Your task to perform on an android device: toggle sleep mode Image 0: 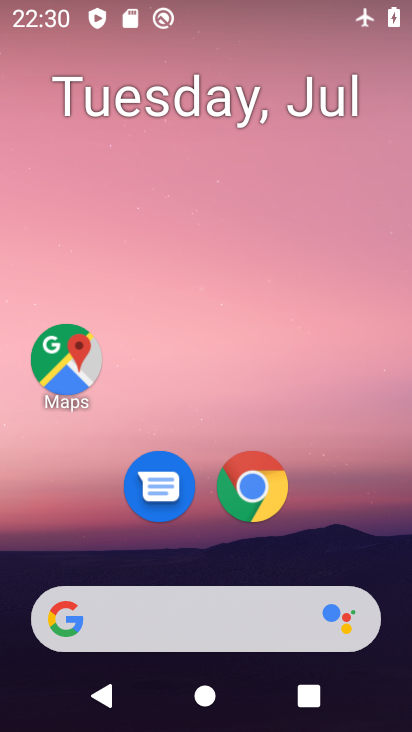
Step 0: press home button
Your task to perform on an android device: toggle sleep mode Image 1: 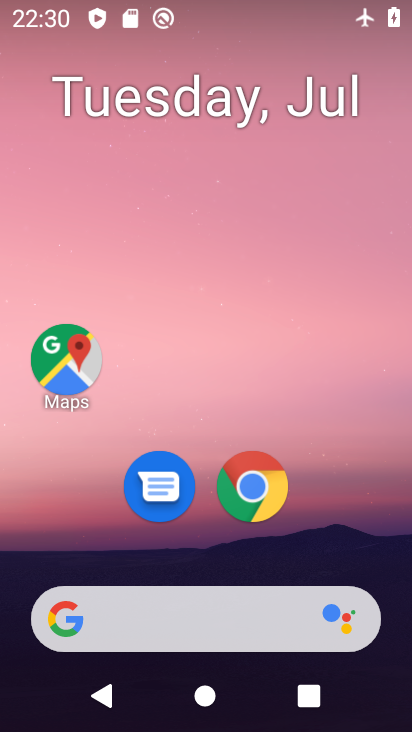
Step 1: drag from (361, 530) to (377, 191)
Your task to perform on an android device: toggle sleep mode Image 2: 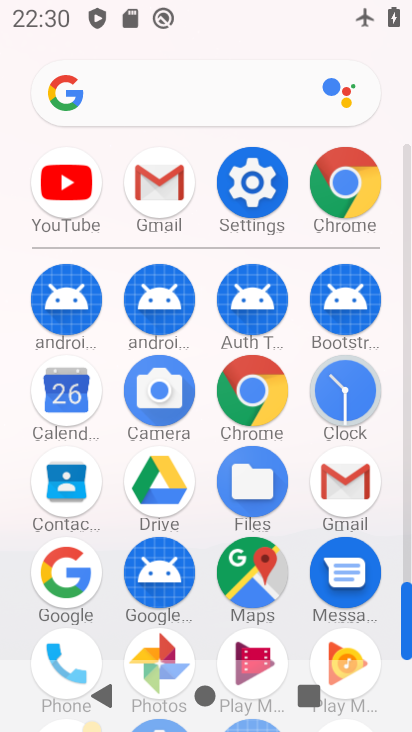
Step 2: click (260, 189)
Your task to perform on an android device: toggle sleep mode Image 3: 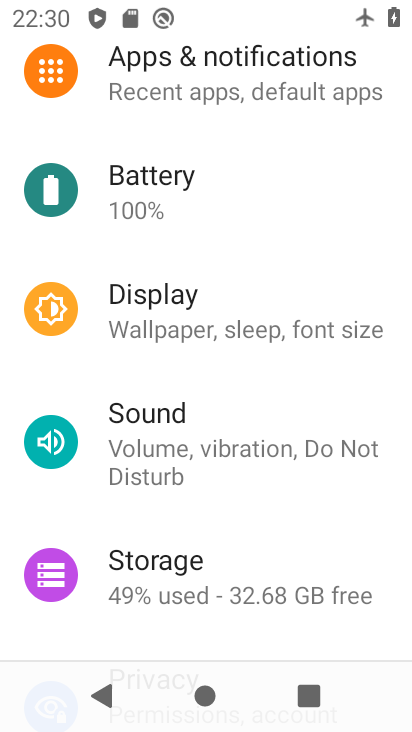
Step 3: drag from (365, 143) to (354, 314)
Your task to perform on an android device: toggle sleep mode Image 4: 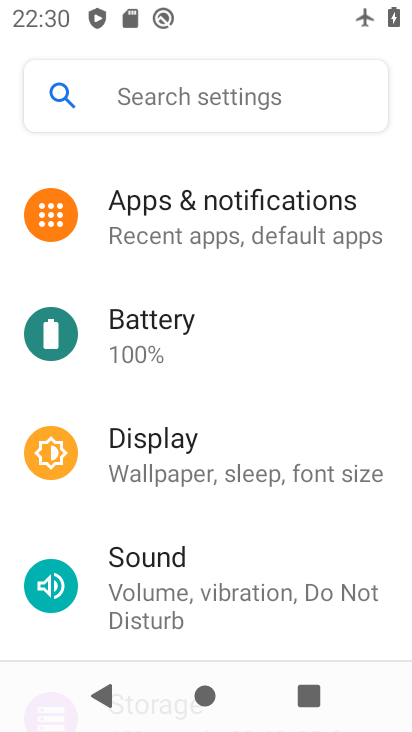
Step 4: drag from (377, 178) to (366, 338)
Your task to perform on an android device: toggle sleep mode Image 5: 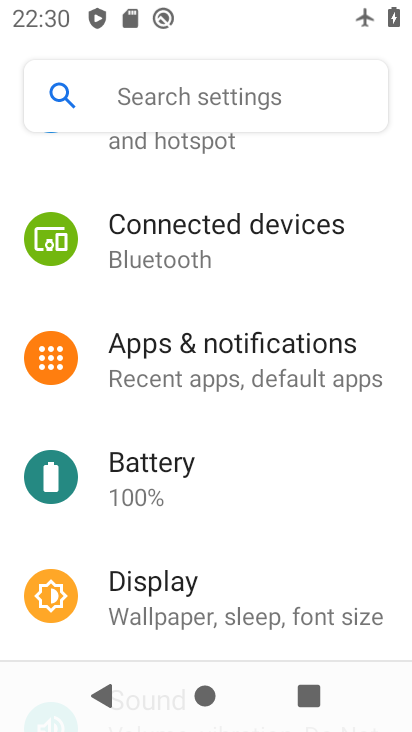
Step 5: drag from (361, 224) to (361, 408)
Your task to perform on an android device: toggle sleep mode Image 6: 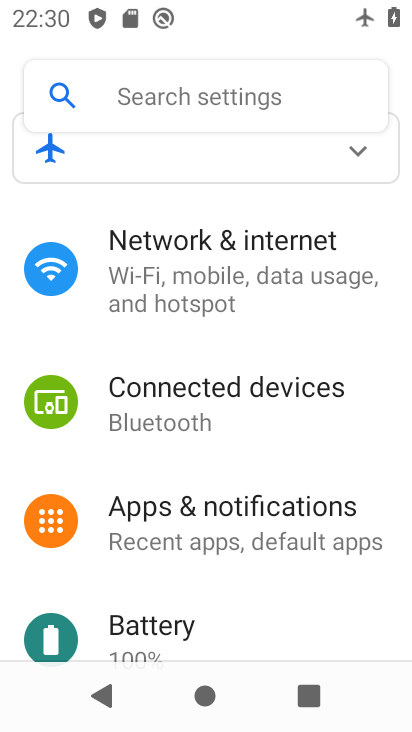
Step 6: drag from (368, 307) to (363, 447)
Your task to perform on an android device: toggle sleep mode Image 7: 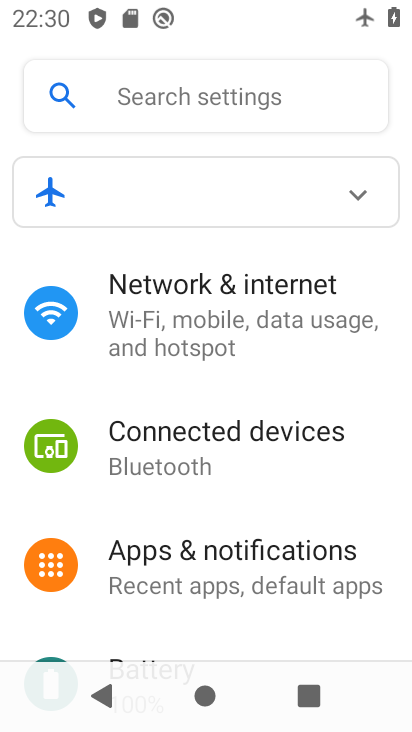
Step 7: drag from (343, 560) to (344, 444)
Your task to perform on an android device: toggle sleep mode Image 8: 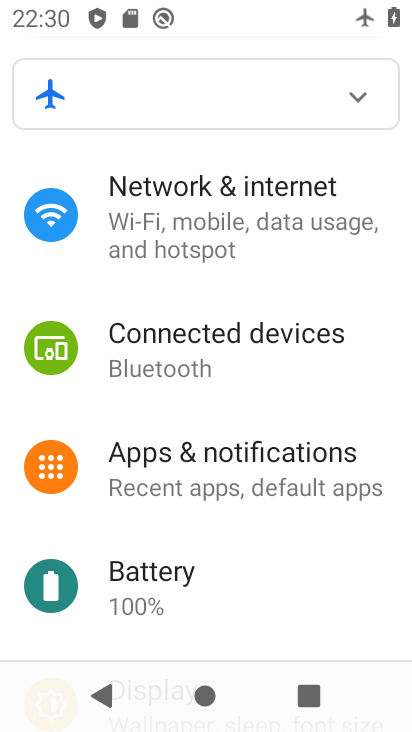
Step 8: drag from (320, 544) to (319, 442)
Your task to perform on an android device: toggle sleep mode Image 9: 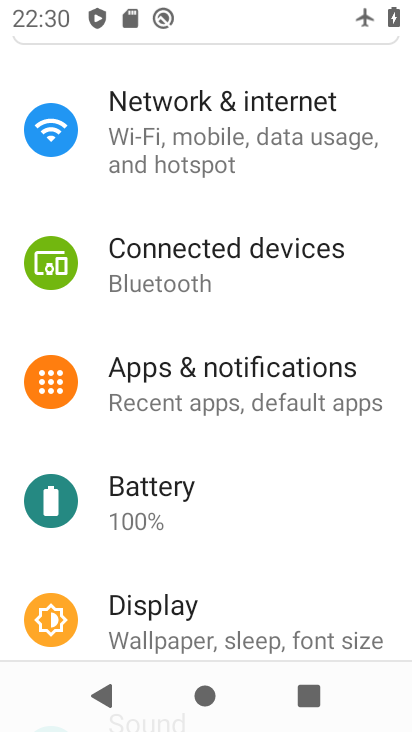
Step 9: drag from (305, 516) to (301, 416)
Your task to perform on an android device: toggle sleep mode Image 10: 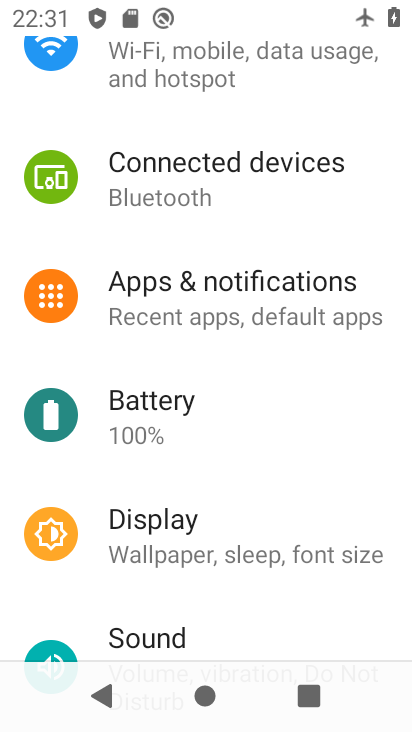
Step 10: drag from (307, 494) to (304, 383)
Your task to perform on an android device: toggle sleep mode Image 11: 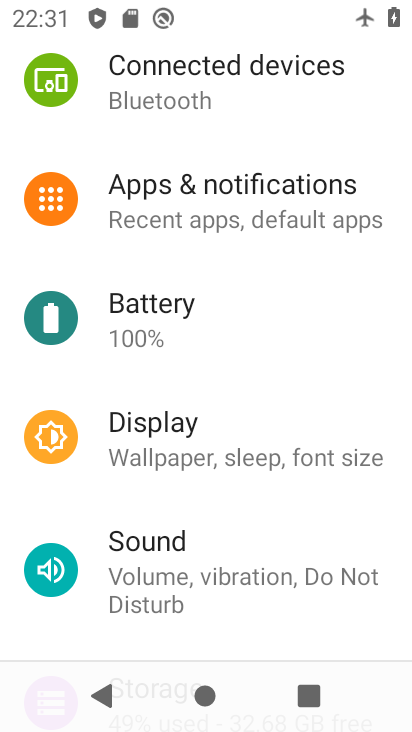
Step 11: drag from (298, 503) to (291, 389)
Your task to perform on an android device: toggle sleep mode Image 12: 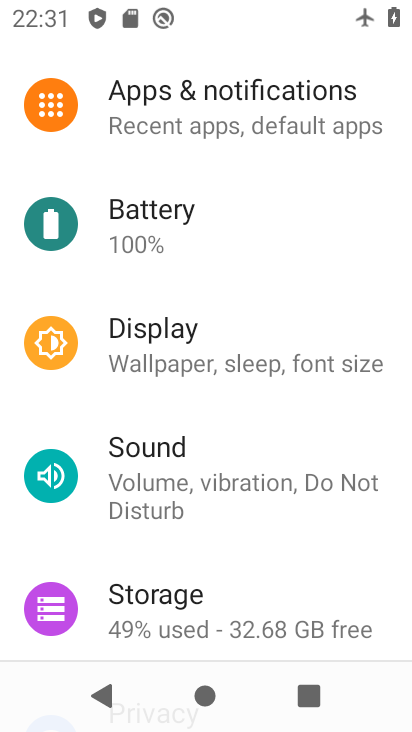
Step 12: click (292, 360)
Your task to perform on an android device: toggle sleep mode Image 13: 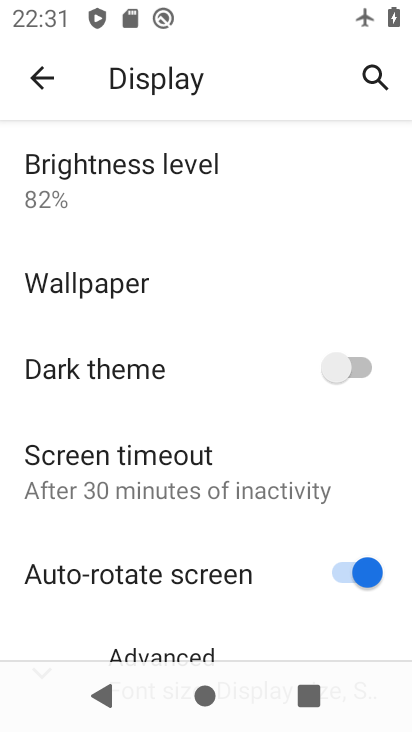
Step 13: drag from (257, 527) to (259, 390)
Your task to perform on an android device: toggle sleep mode Image 14: 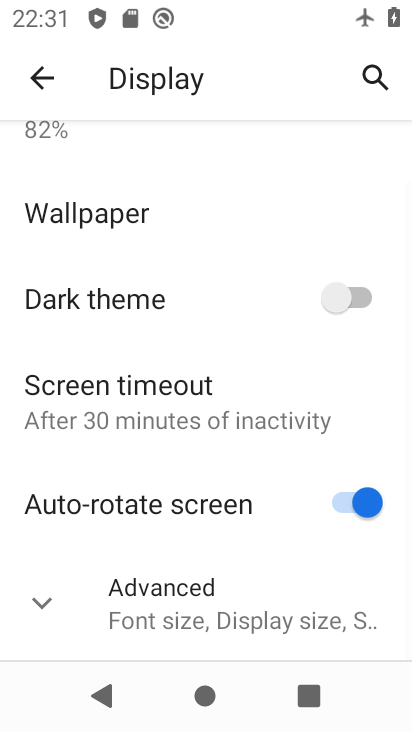
Step 14: click (223, 579)
Your task to perform on an android device: toggle sleep mode Image 15: 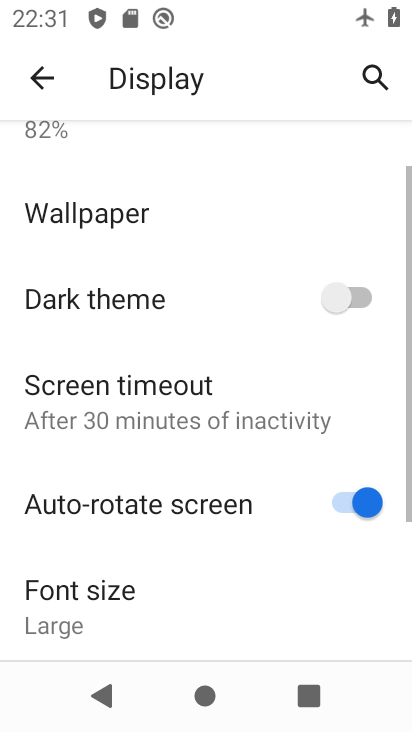
Step 15: task complete